Your task to perform on an android device: Open the stopwatch Image 0: 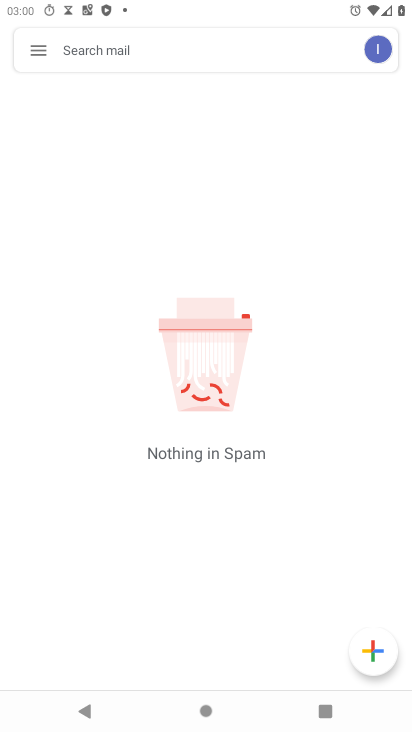
Step 0: press home button
Your task to perform on an android device: Open the stopwatch Image 1: 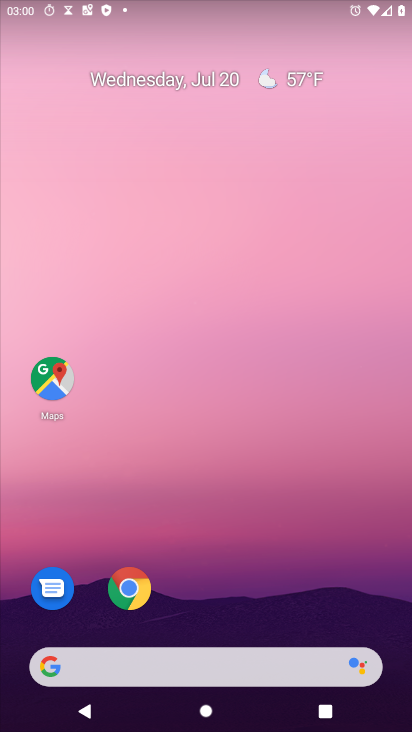
Step 1: drag from (262, 657) to (317, 251)
Your task to perform on an android device: Open the stopwatch Image 2: 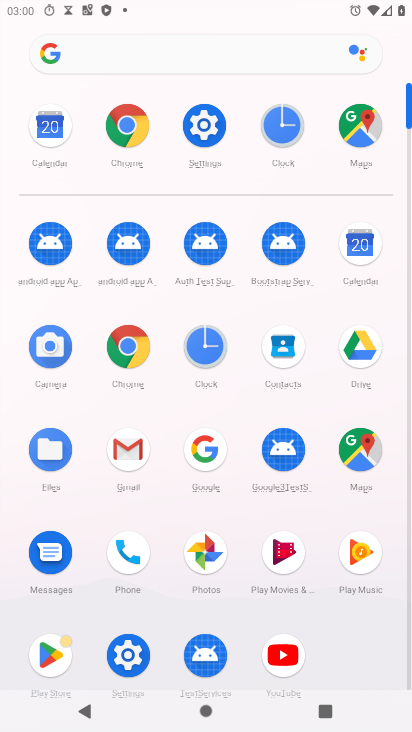
Step 2: click (119, 351)
Your task to perform on an android device: Open the stopwatch Image 3: 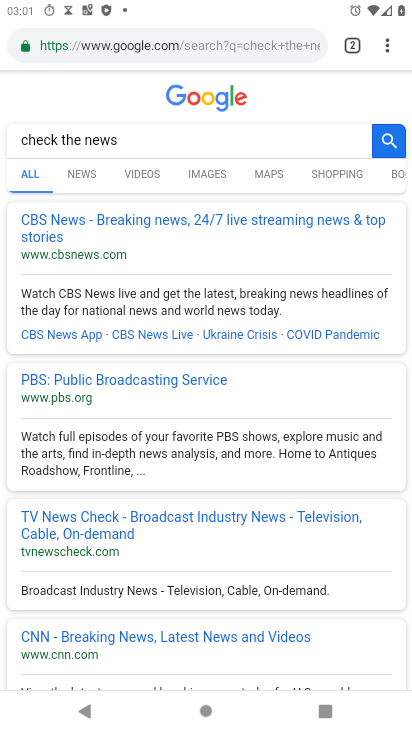
Step 3: press home button
Your task to perform on an android device: Open the stopwatch Image 4: 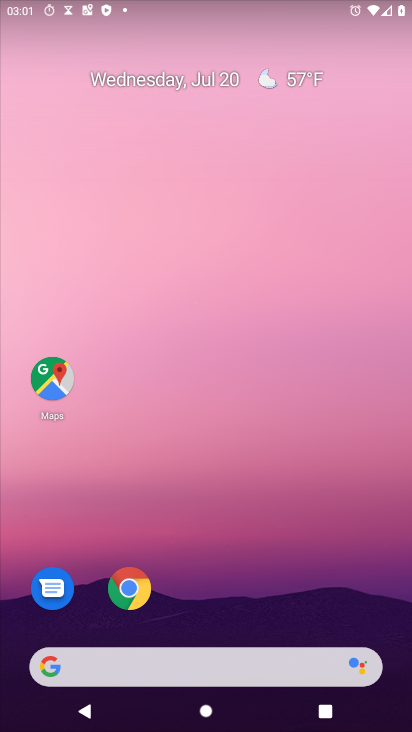
Step 4: drag from (281, 572) to (303, 169)
Your task to perform on an android device: Open the stopwatch Image 5: 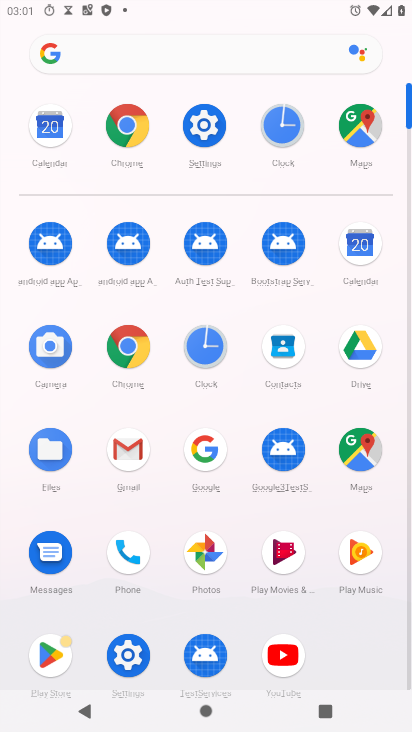
Step 5: click (210, 344)
Your task to perform on an android device: Open the stopwatch Image 6: 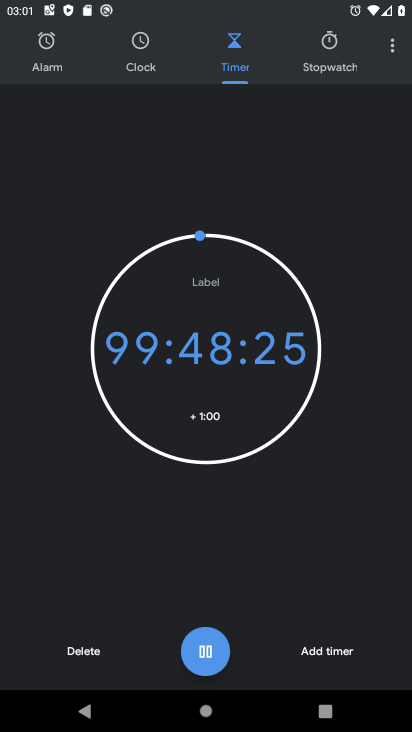
Step 6: click (325, 44)
Your task to perform on an android device: Open the stopwatch Image 7: 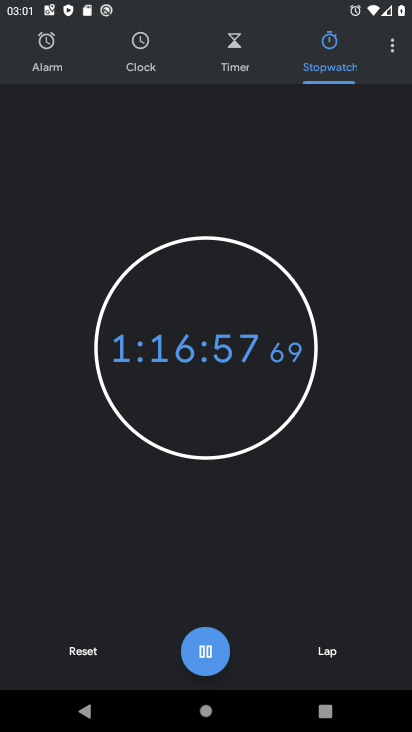
Step 7: task complete